Your task to perform on an android device: turn notification dots on Image 0: 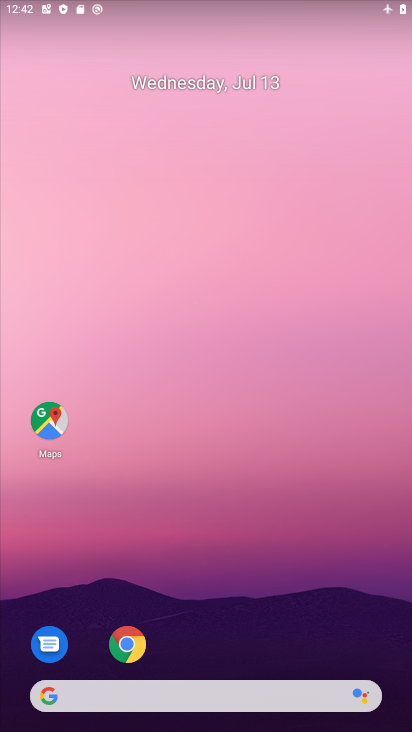
Step 0: drag from (304, 578) to (251, 78)
Your task to perform on an android device: turn notification dots on Image 1: 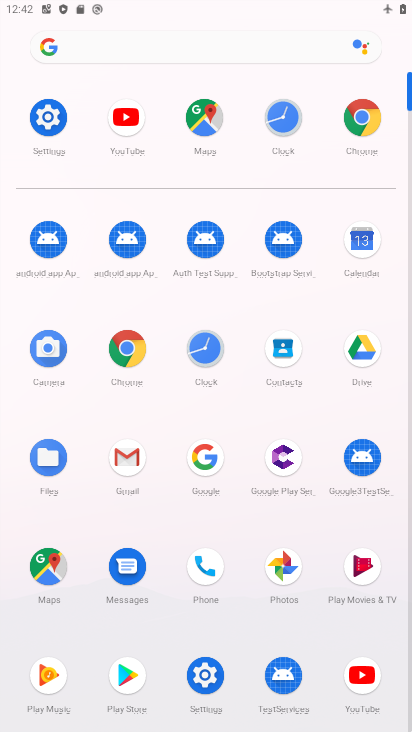
Step 1: click (47, 117)
Your task to perform on an android device: turn notification dots on Image 2: 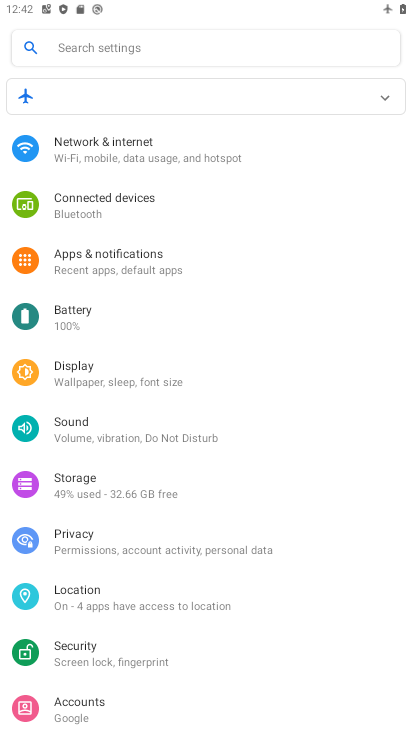
Step 2: click (149, 273)
Your task to perform on an android device: turn notification dots on Image 3: 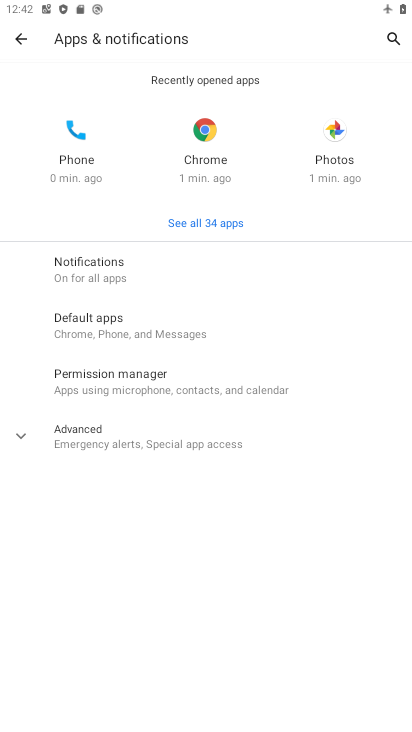
Step 3: click (126, 266)
Your task to perform on an android device: turn notification dots on Image 4: 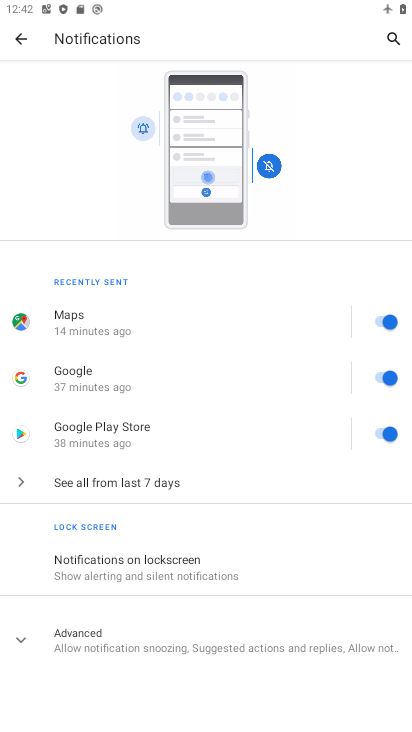
Step 4: click (213, 652)
Your task to perform on an android device: turn notification dots on Image 5: 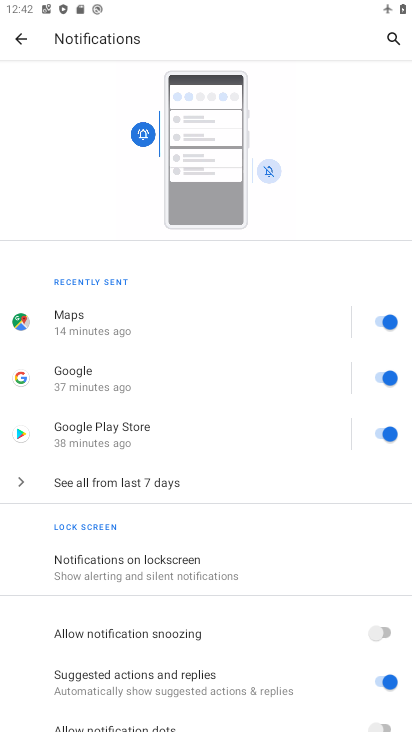
Step 5: drag from (296, 580) to (308, 247)
Your task to perform on an android device: turn notification dots on Image 6: 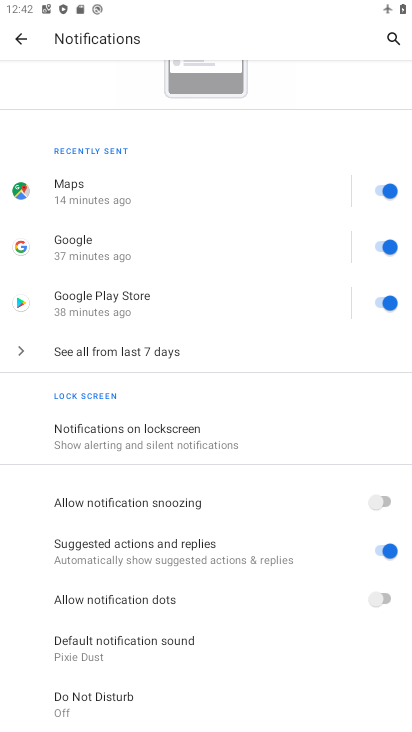
Step 6: click (387, 599)
Your task to perform on an android device: turn notification dots on Image 7: 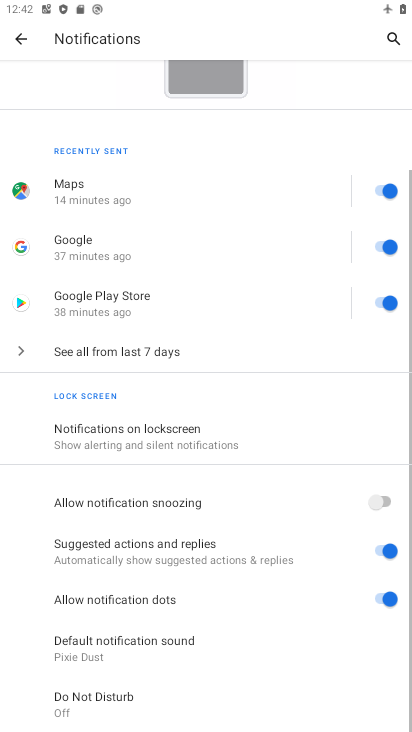
Step 7: task complete